Your task to perform on an android device: add a contact Image 0: 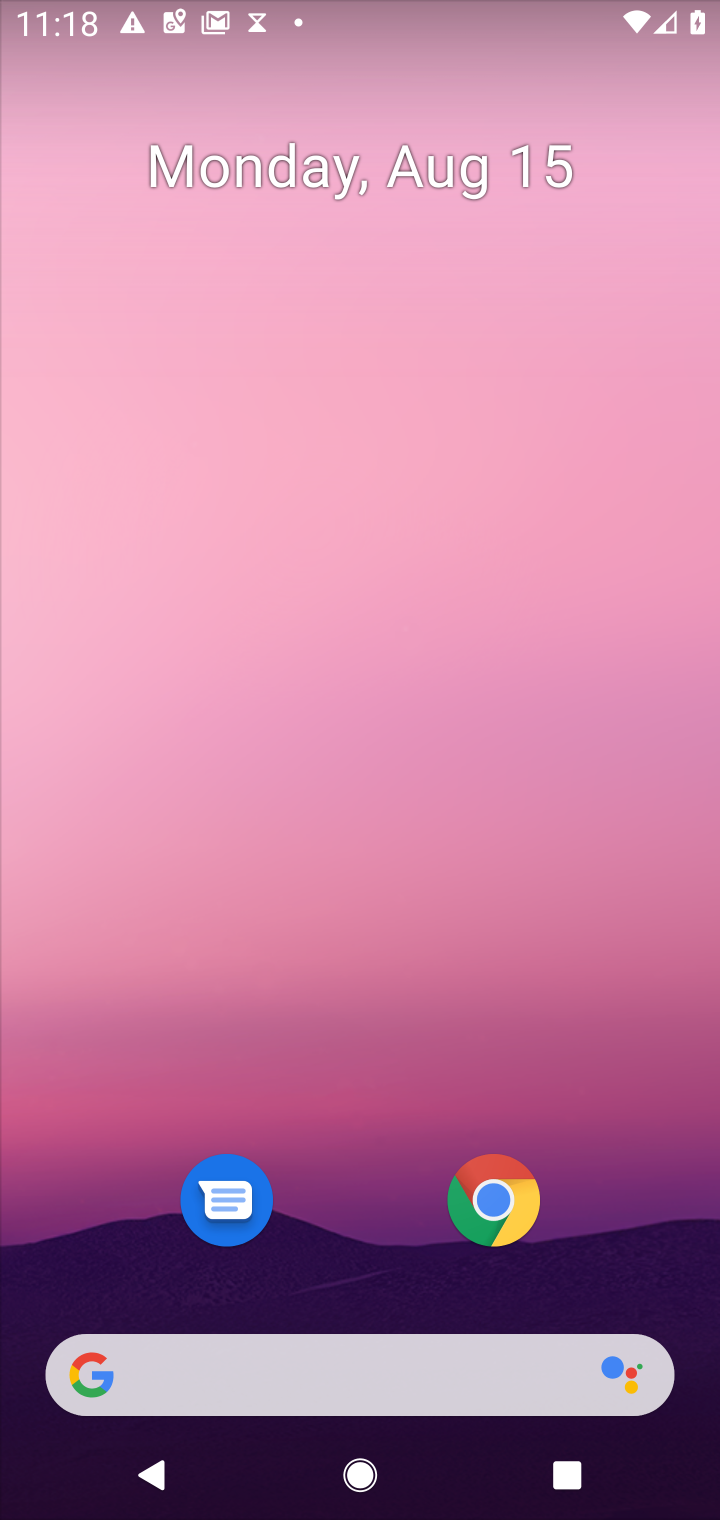
Step 0: drag from (388, 1159) to (416, 413)
Your task to perform on an android device: add a contact Image 1: 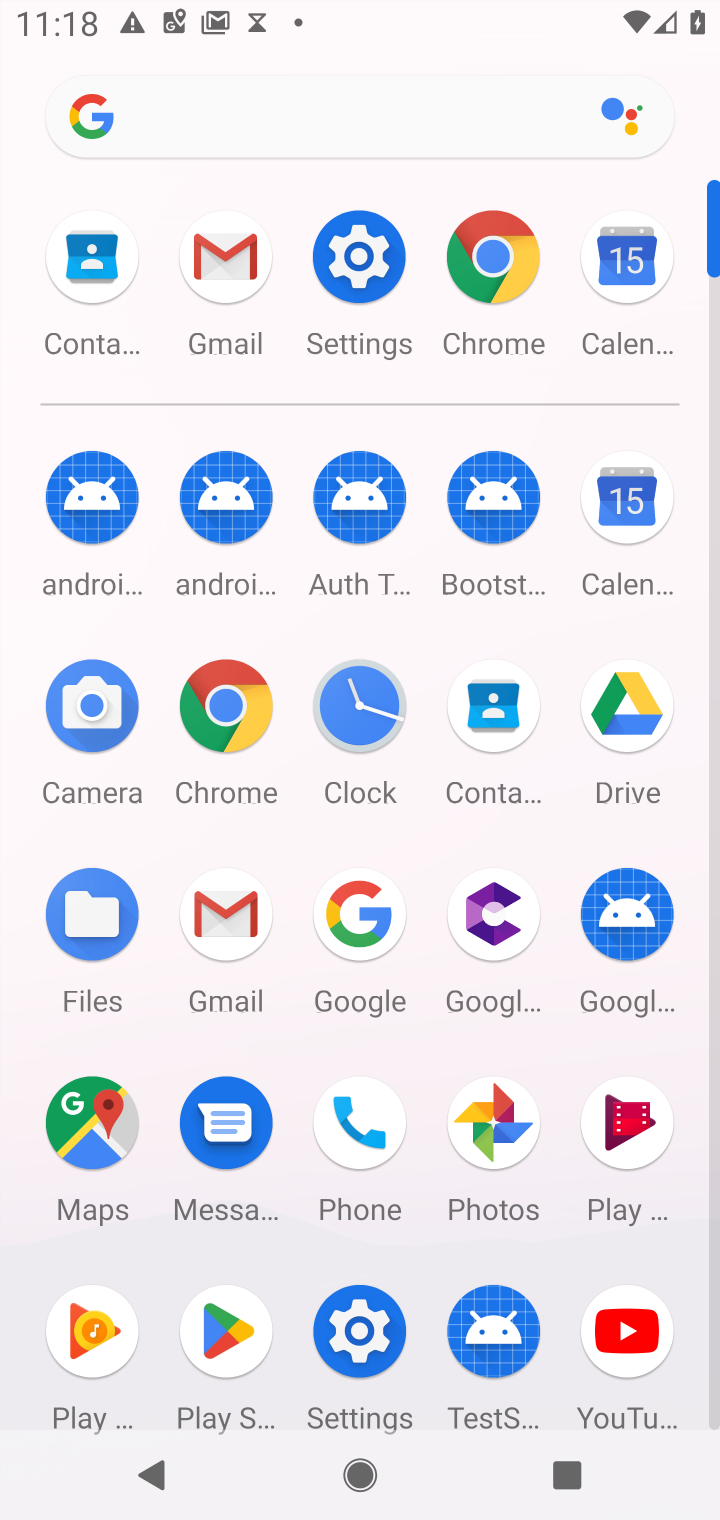
Step 1: click (494, 715)
Your task to perform on an android device: add a contact Image 2: 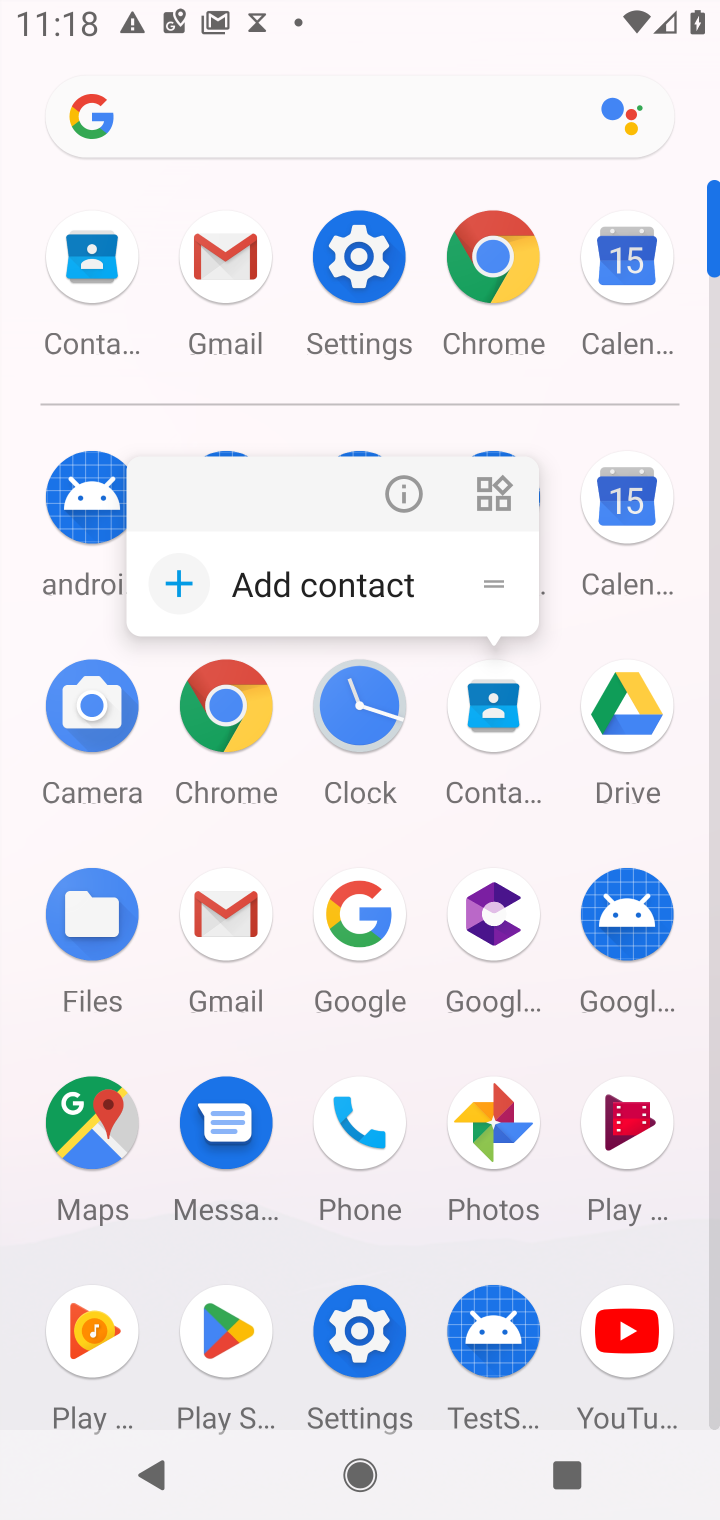
Step 2: click (494, 715)
Your task to perform on an android device: add a contact Image 3: 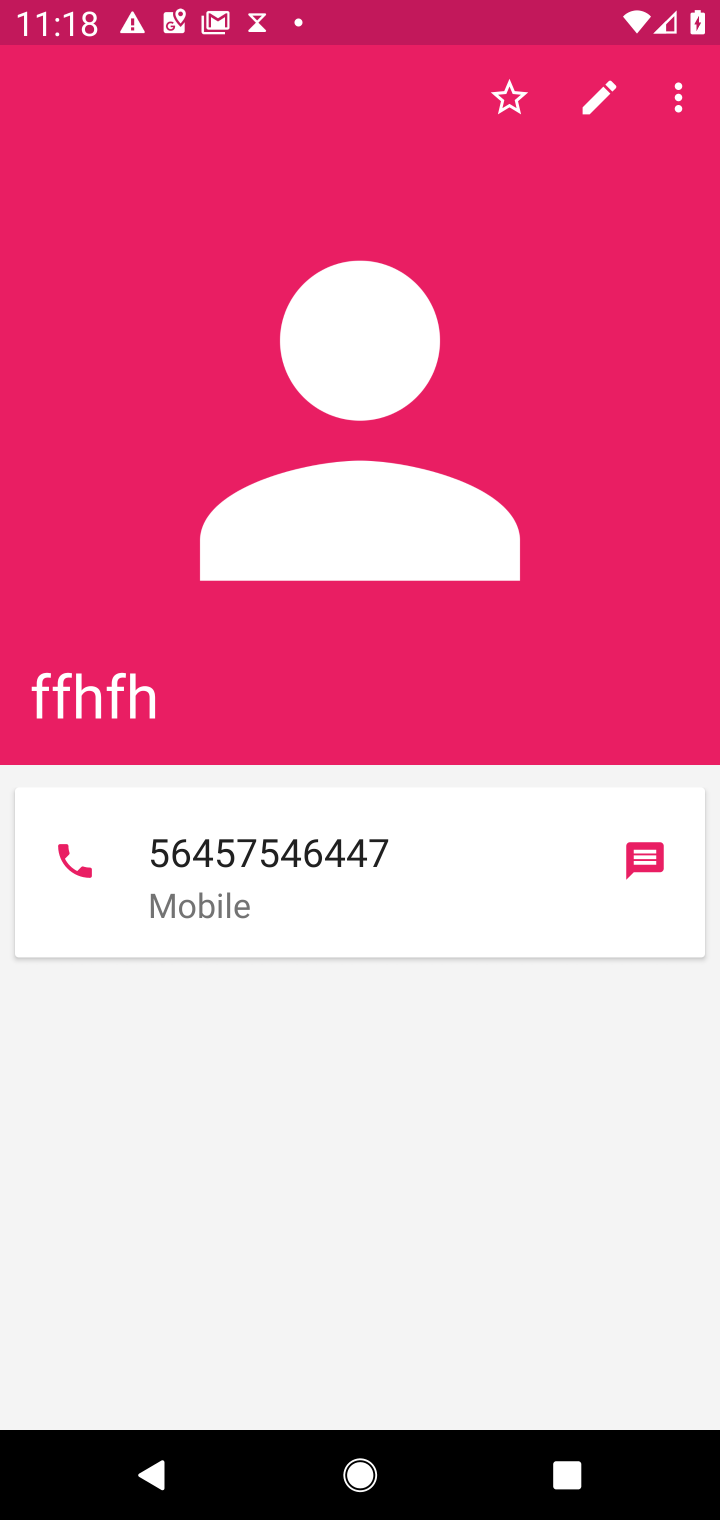
Step 3: press back button
Your task to perform on an android device: add a contact Image 4: 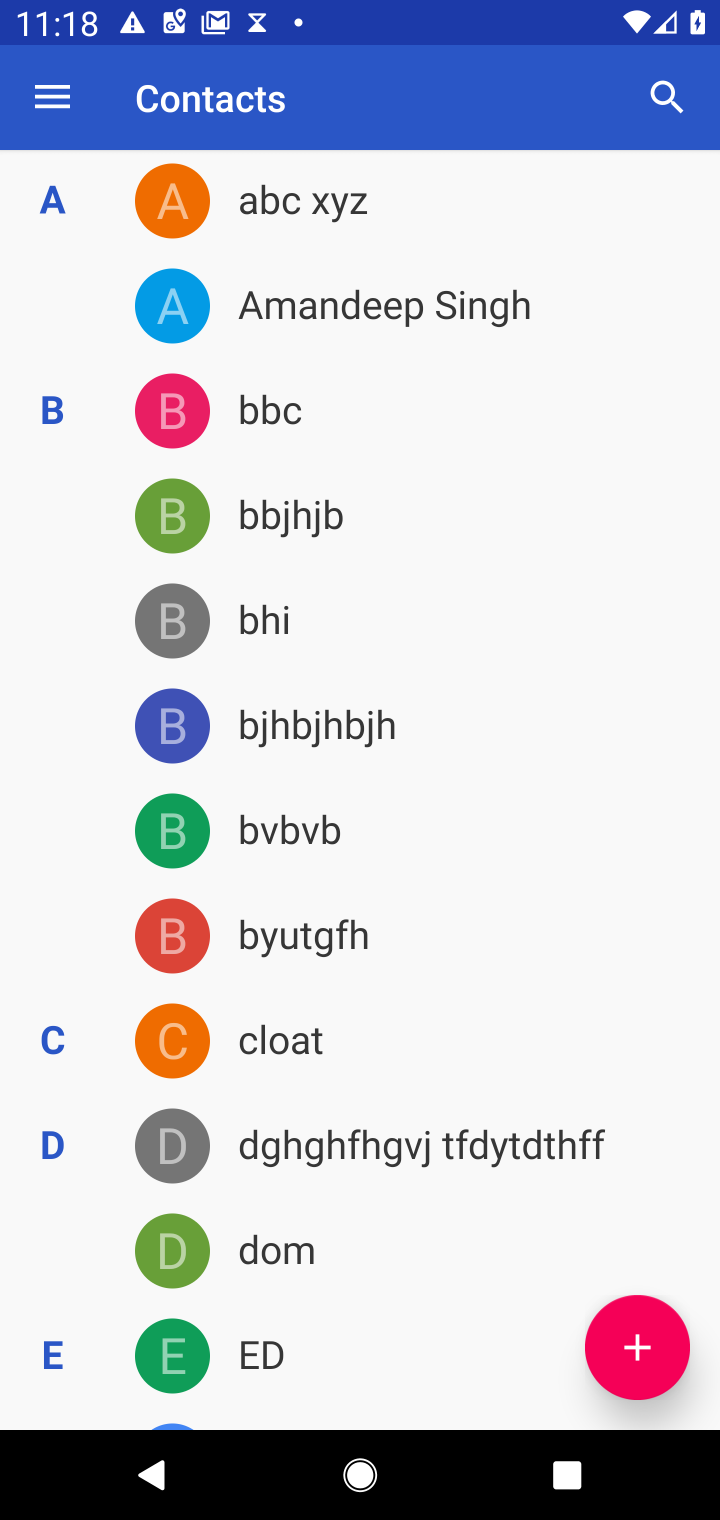
Step 4: click (662, 1338)
Your task to perform on an android device: add a contact Image 5: 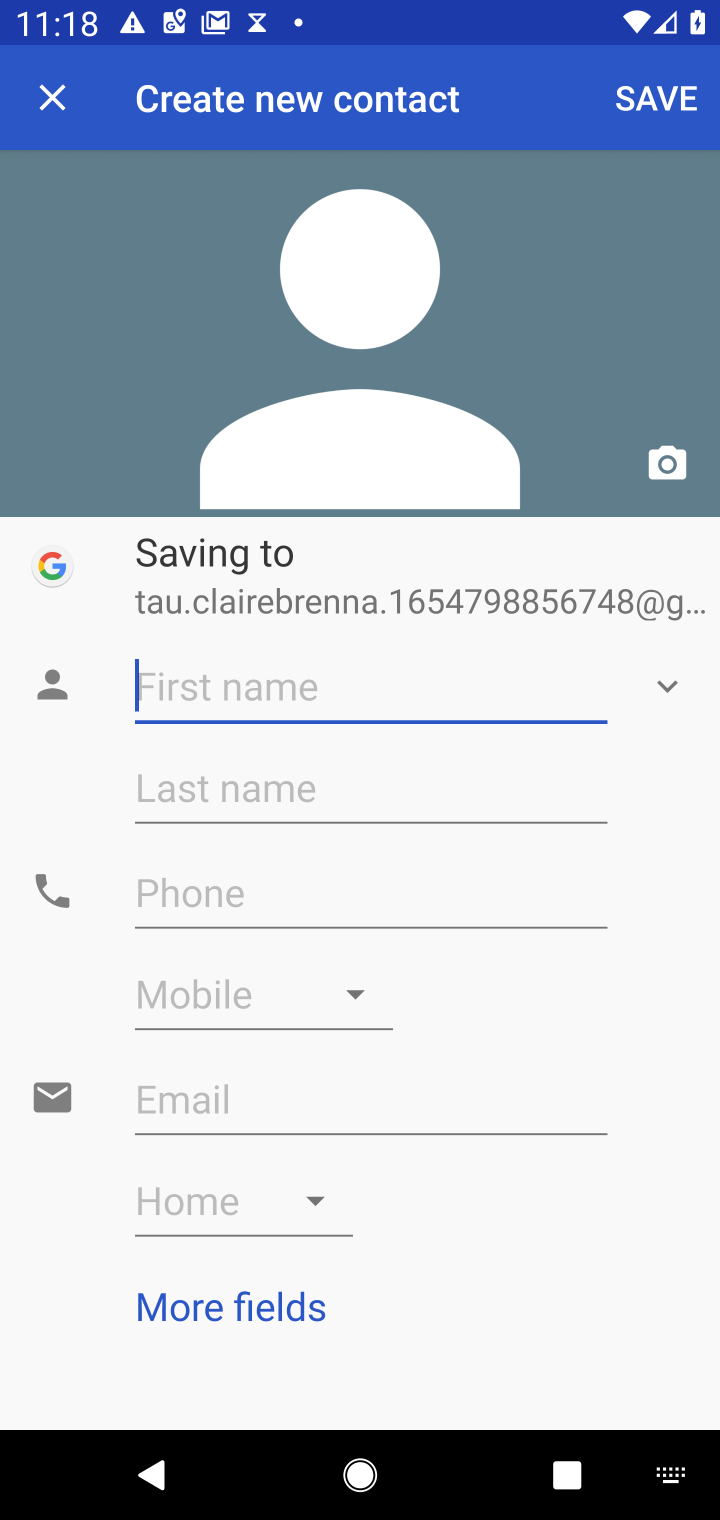
Step 5: type "fhfgh"
Your task to perform on an android device: add a contact Image 6: 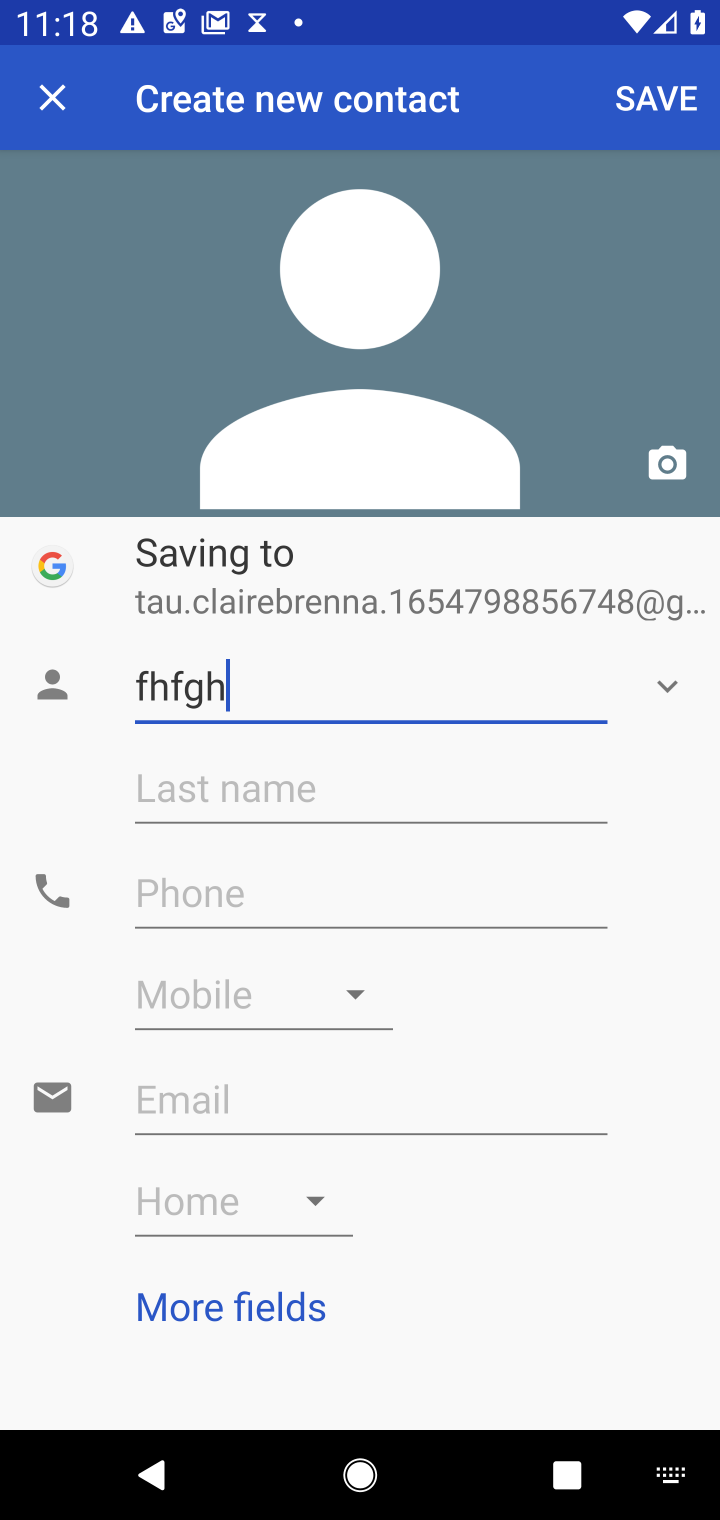
Step 6: click (346, 908)
Your task to perform on an android device: add a contact Image 7: 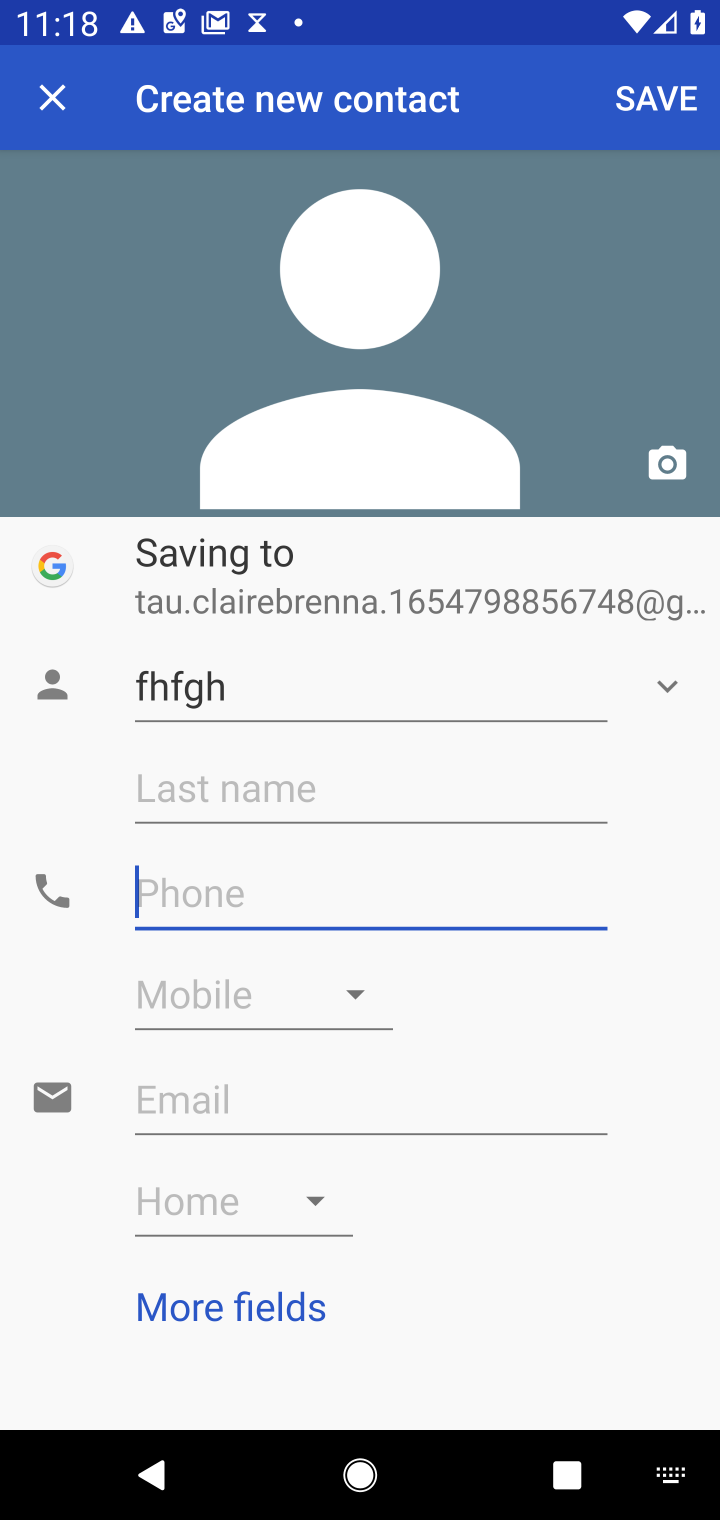
Step 7: type "8455745644576"
Your task to perform on an android device: add a contact Image 8: 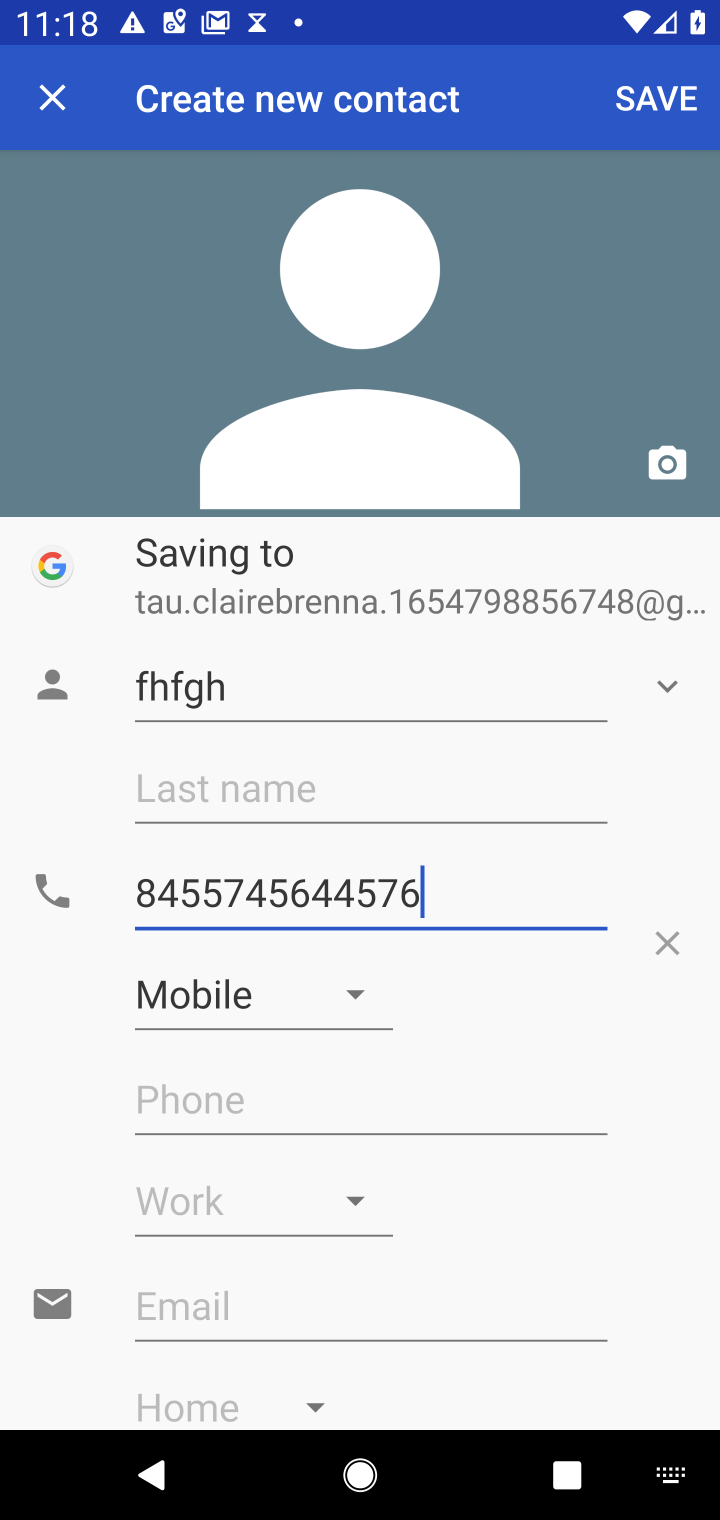
Step 8: click (648, 102)
Your task to perform on an android device: add a contact Image 9: 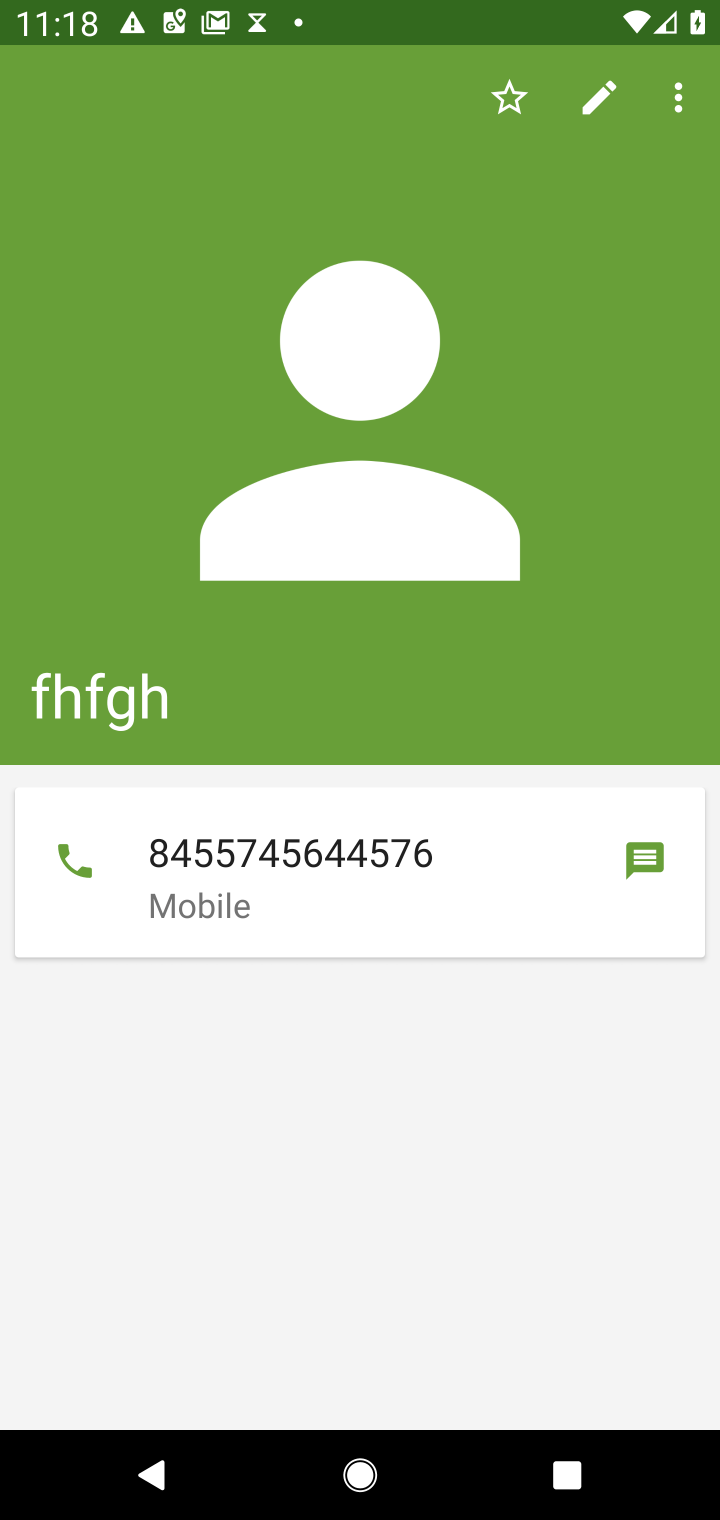
Step 9: task complete